Your task to perform on an android device: What's the weather today? Image 0: 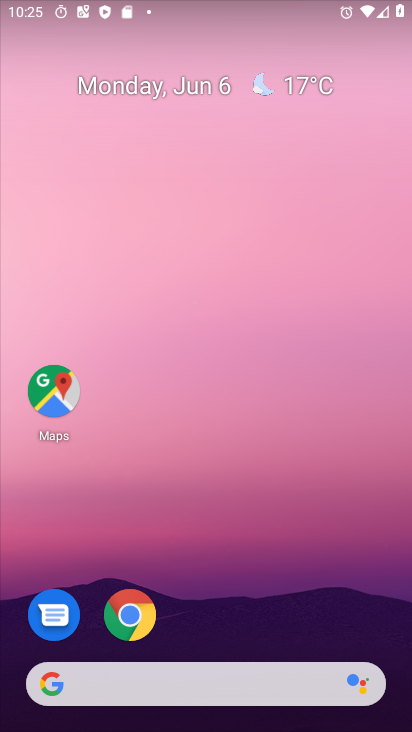
Step 0: click (303, 81)
Your task to perform on an android device: What's the weather today? Image 1: 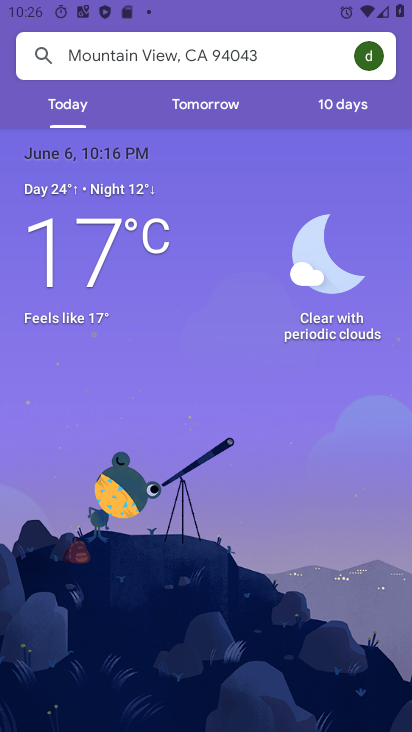
Step 1: task complete